Your task to perform on an android device: toggle pop-ups in chrome Image 0: 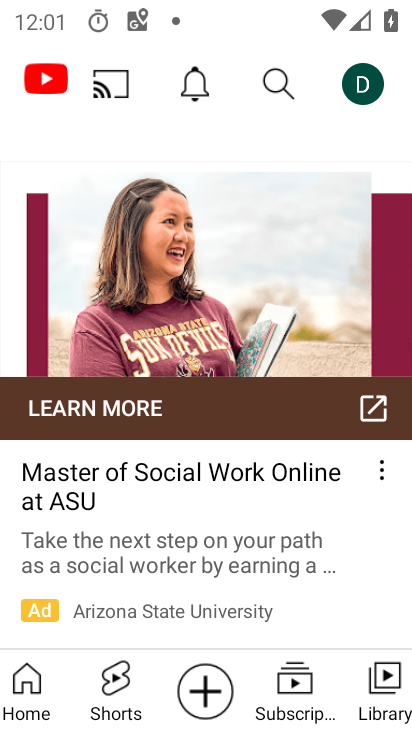
Step 0: click (340, 214)
Your task to perform on an android device: toggle pop-ups in chrome Image 1: 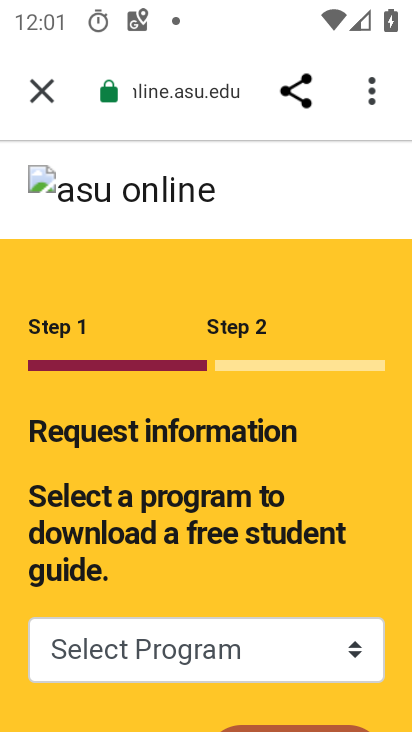
Step 1: press home button
Your task to perform on an android device: toggle pop-ups in chrome Image 2: 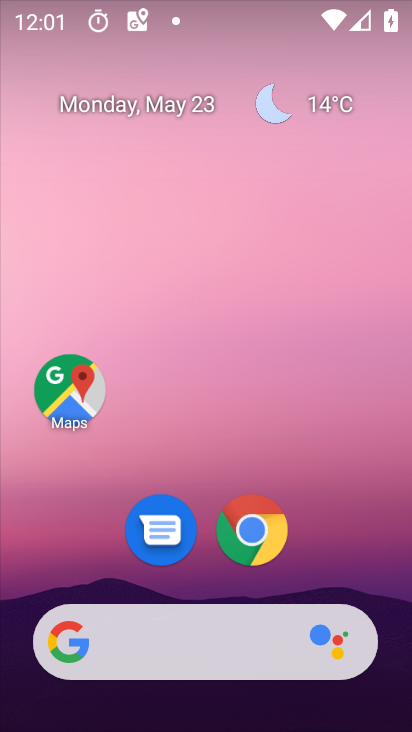
Step 2: click (264, 518)
Your task to perform on an android device: toggle pop-ups in chrome Image 3: 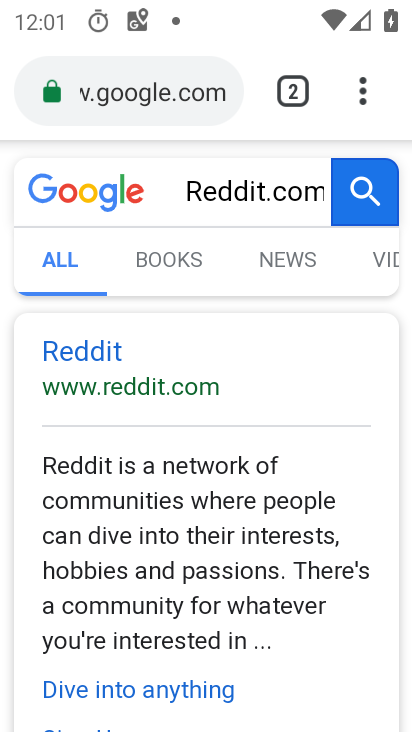
Step 3: click (362, 96)
Your task to perform on an android device: toggle pop-ups in chrome Image 4: 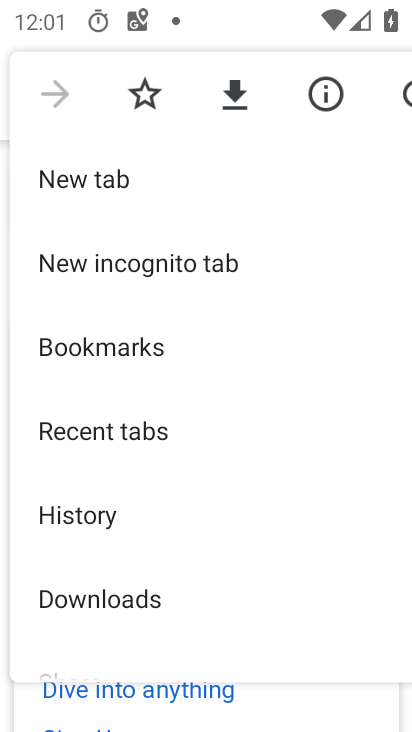
Step 4: drag from (312, 646) to (281, 399)
Your task to perform on an android device: toggle pop-ups in chrome Image 5: 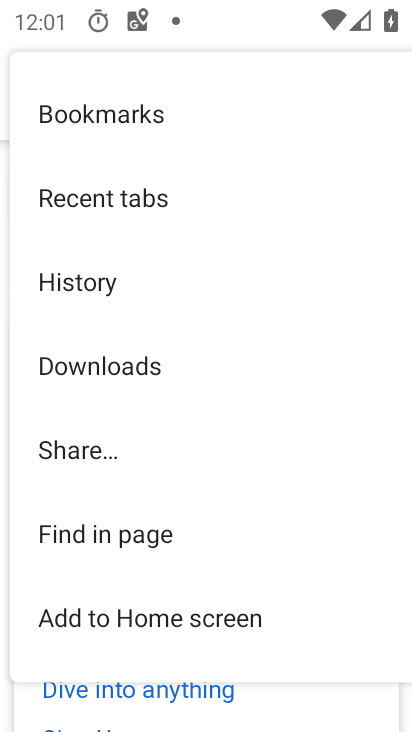
Step 5: drag from (283, 647) to (288, 453)
Your task to perform on an android device: toggle pop-ups in chrome Image 6: 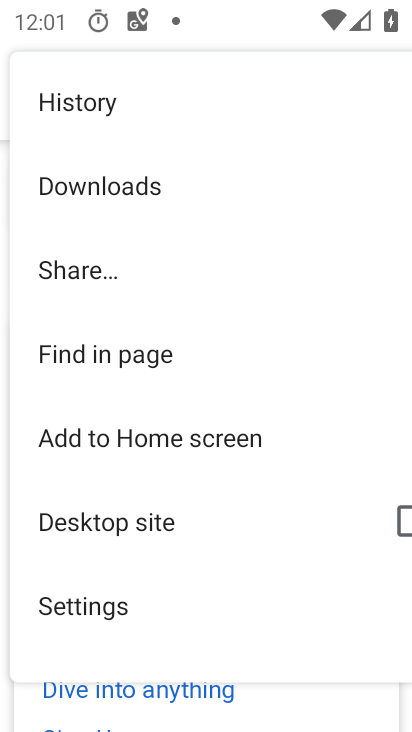
Step 6: click (87, 612)
Your task to perform on an android device: toggle pop-ups in chrome Image 7: 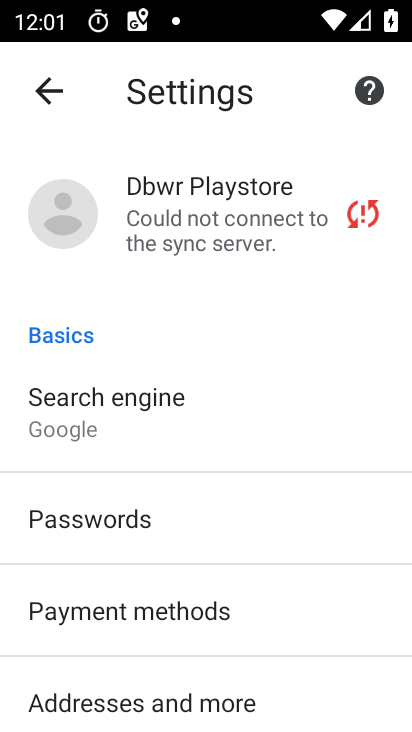
Step 7: drag from (300, 686) to (263, 391)
Your task to perform on an android device: toggle pop-ups in chrome Image 8: 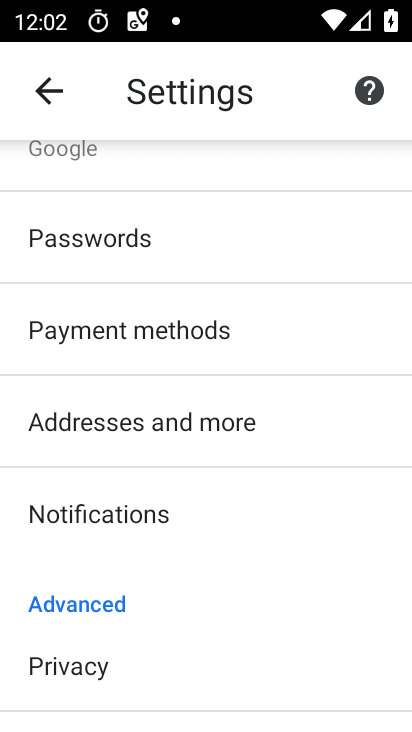
Step 8: drag from (267, 648) to (160, 184)
Your task to perform on an android device: toggle pop-ups in chrome Image 9: 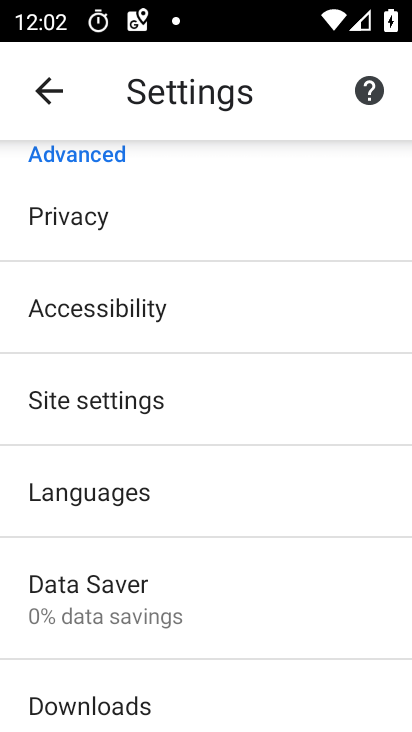
Step 9: click (113, 385)
Your task to perform on an android device: toggle pop-ups in chrome Image 10: 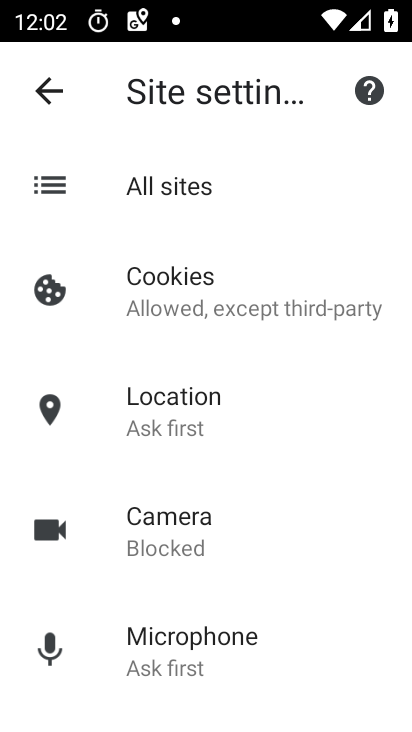
Step 10: drag from (289, 673) to (272, 382)
Your task to perform on an android device: toggle pop-ups in chrome Image 11: 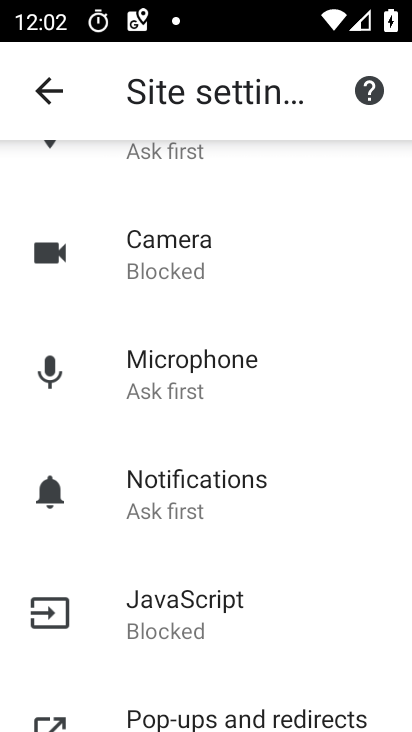
Step 11: drag from (217, 667) to (235, 501)
Your task to perform on an android device: toggle pop-ups in chrome Image 12: 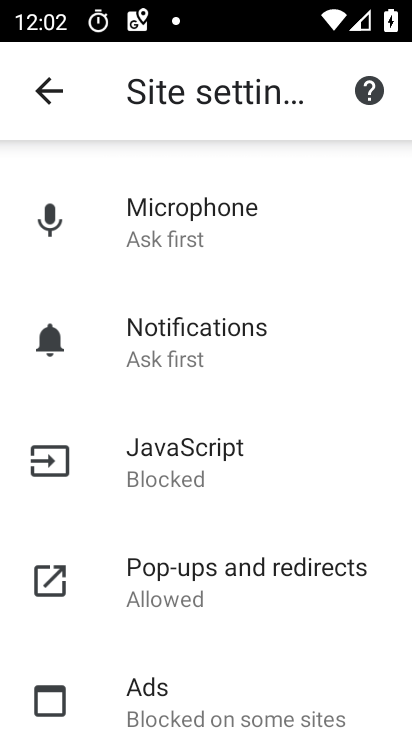
Step 12: click (195, 576)
Your task to perform on an android device: toggle pop-ups in chrome Image 13: 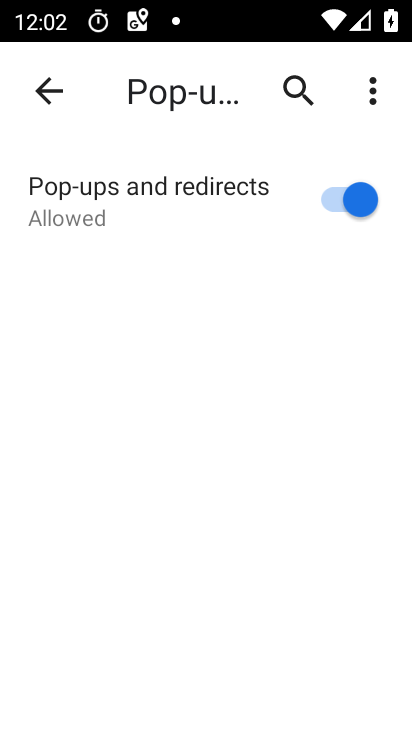
Step 13: click (343, 206)
Your task to perform on an android device: toggle pop-ups in chrome Image 14: 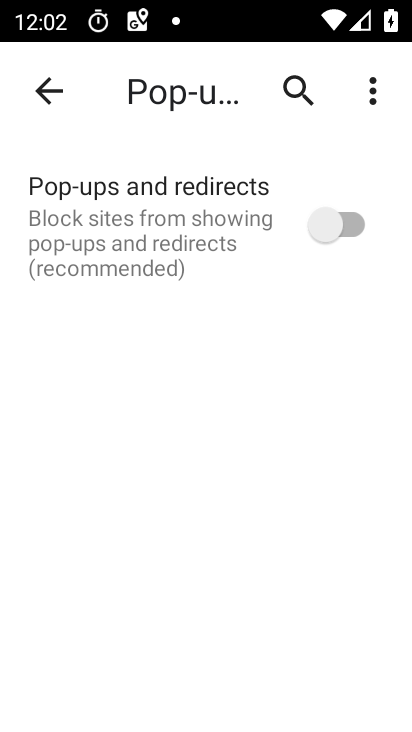
Step 14: task complete